Your task to perform on an android device: turn off translation in the chrome app Image 0: 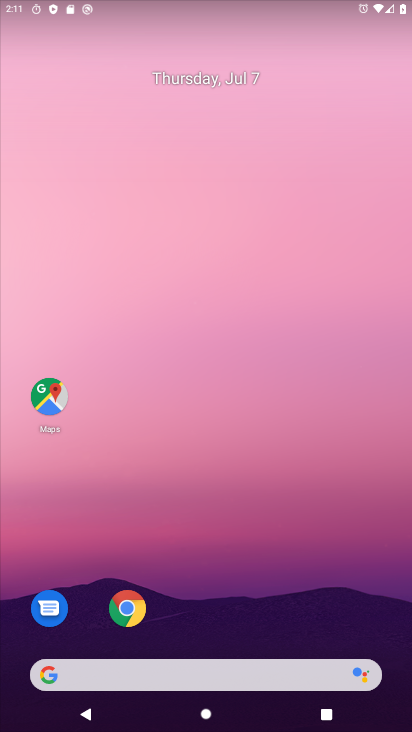
Step 0: click (127, 608)
Your task to perform on an android device: turn off translation in the chrome app Image 1: 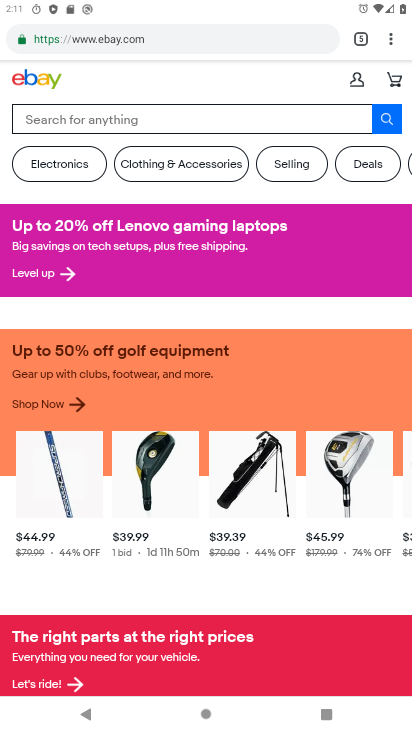
Step 1: click (390, 43)
Your task to perform on an android device: turn off translation in the chrome app Image 2: 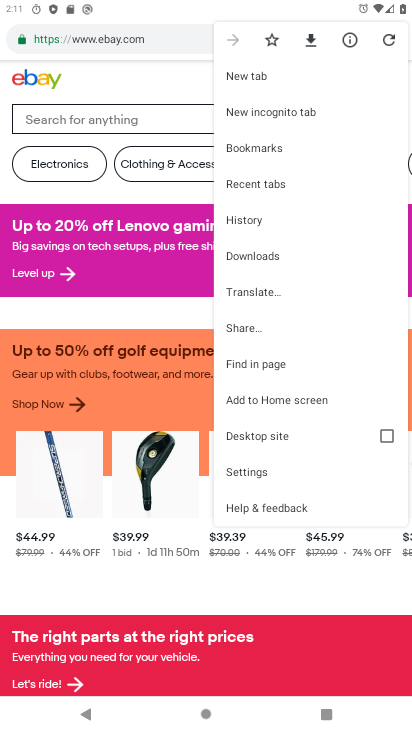
Step 2: click (243, 470)
Your task to perform on an android device: turn off translation in the chrome app Image 3: 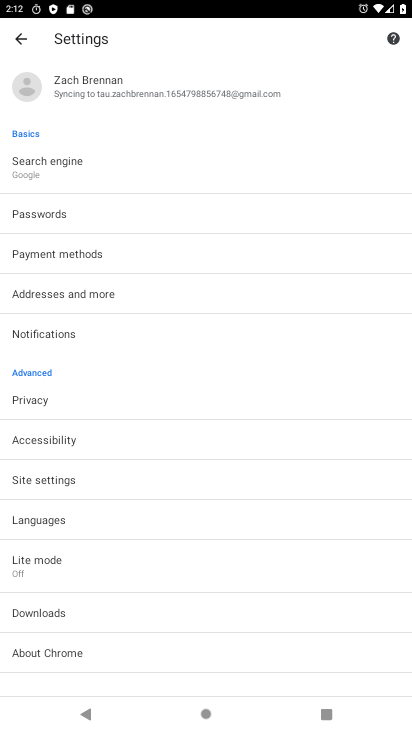
Step 3: click (45, 517)
Your task to perform on an android device: turn off translation in the chrome app Image 4: 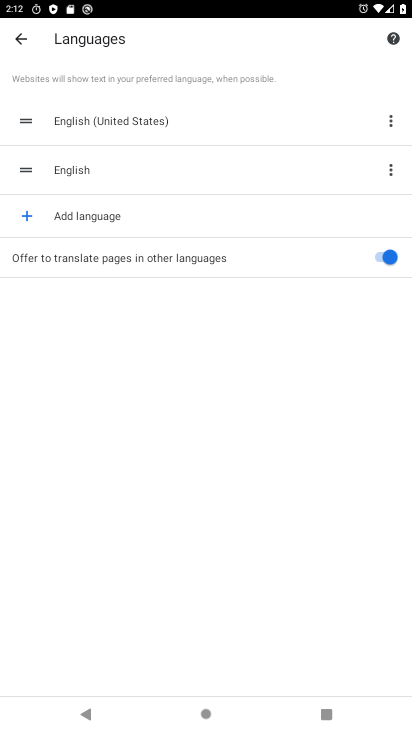
Step 4: click (376, 256)
Your task to perform on an android device: turn off translation in the chrome app Image 5: 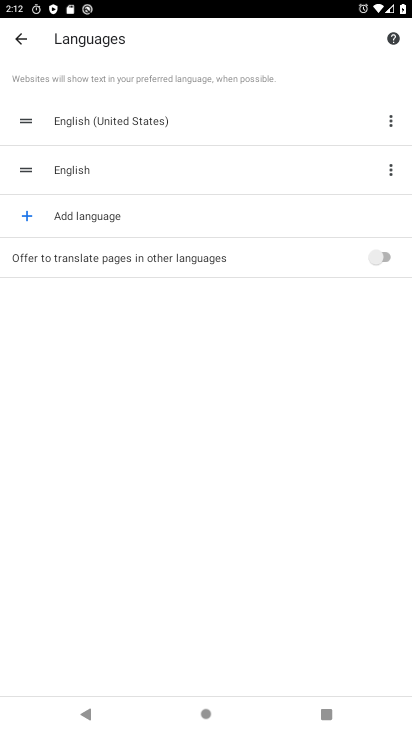
Step 5: task complete